Your task to perform on an android device: turn notification dots off Image 0: 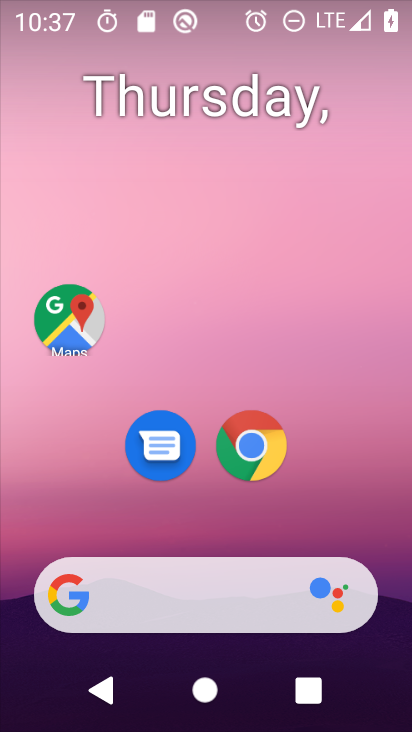
Step 0: drag from (200, 544) to (256, 186)
Your task to perform on an android device: turn notification dots off Image 1: 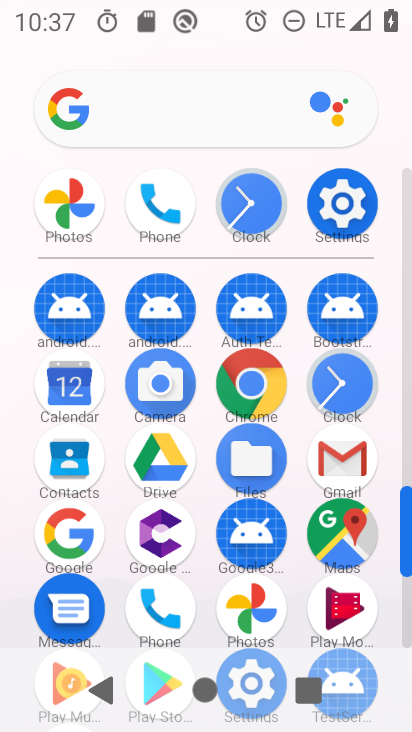
Step 1: click (340, 209)
Your task to perform on an android device: turn notification dots off Image 2: 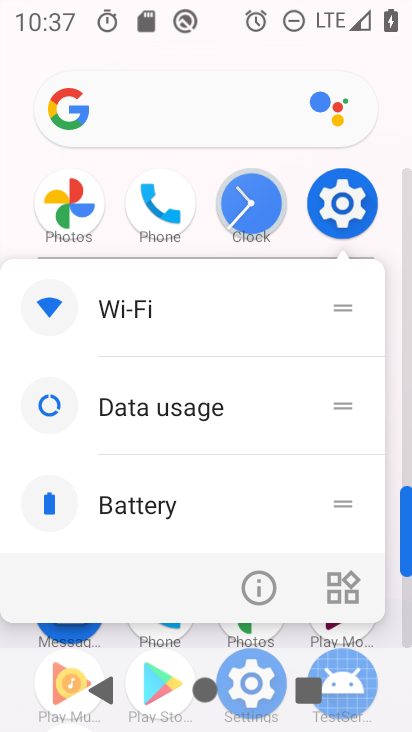
Step 2: click (249, 577)
Your task to perform on an android device: turn notification dots off Image 3: 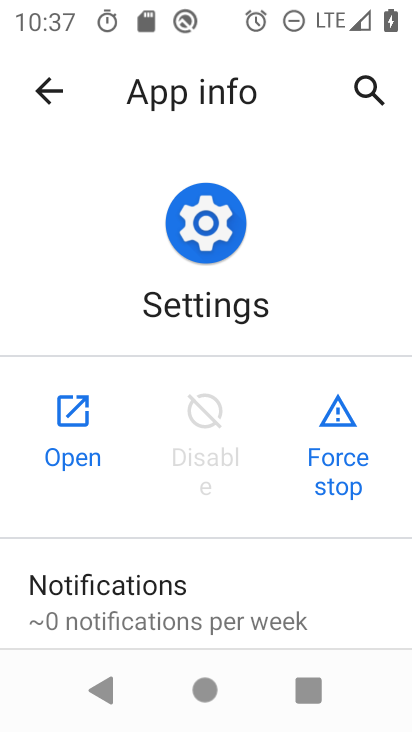
Step 3: click (85, 395)
Your task to perform on an android device: turn notification dots off Image 4: 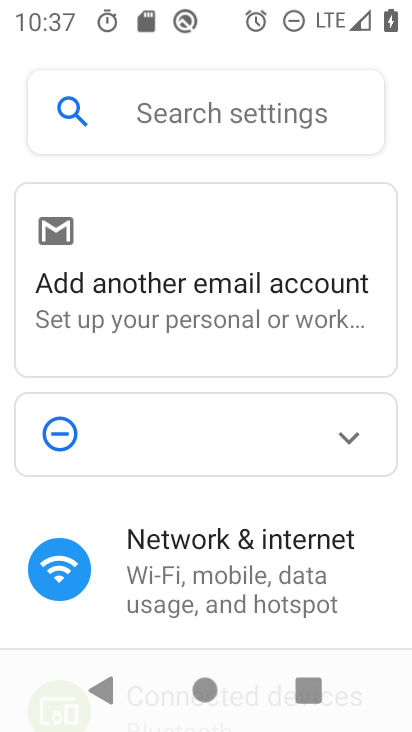
Step 4: click (312, 180)
Your task to perform on an android device: turn notification dots off Image 5: 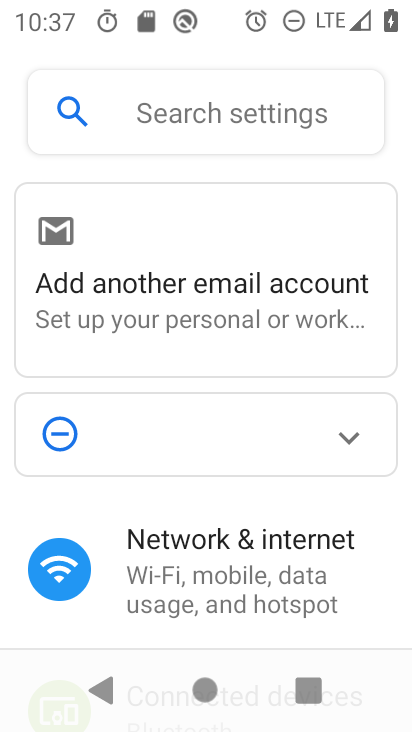
Step 5: drag from (219, 557) to (278, 170)
Your task to perform on an android device: turn notification dots off Image 6: 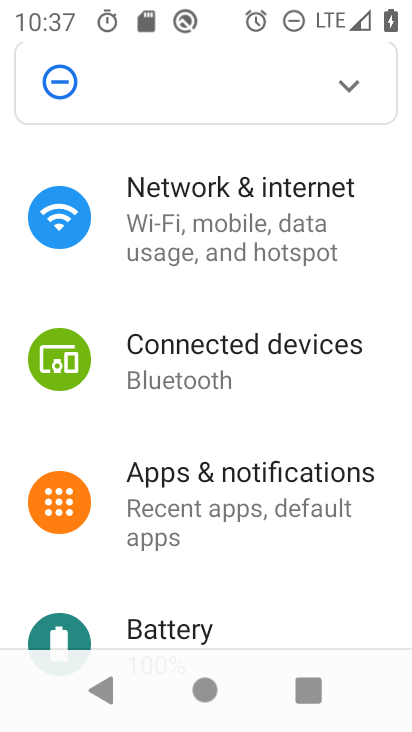
Step 6: click (214, 476)
Your task to perform on an android device: turn notification dots off Image 7: 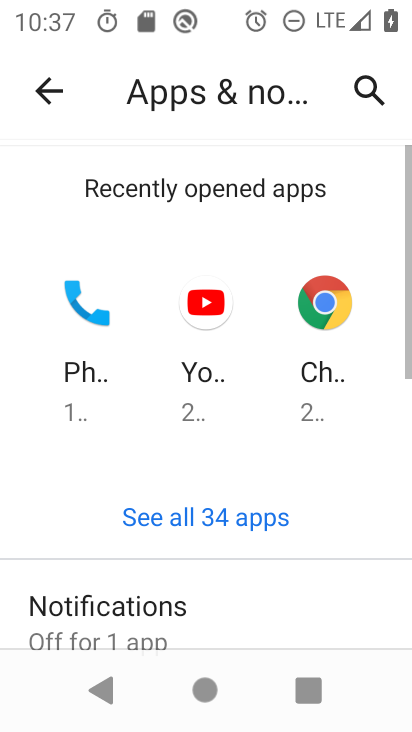
Step 7: drag from (250, 561) to (384, 39)
Your task to perform on an android device: turn notification dots off Image 8: 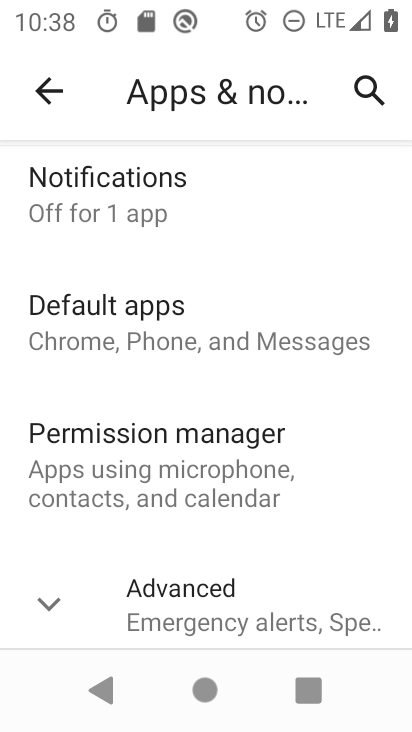
Step 8: click (180, 570)
Your task to perform on an android device: turn notification dots off Image 9: 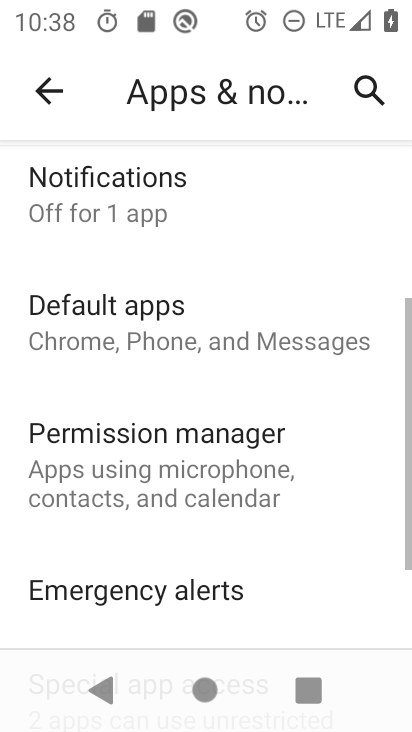
Step 9: drag from (181, 569) to (288, 110)
Your task to perform on an android device: turn notification dots off Image 10: 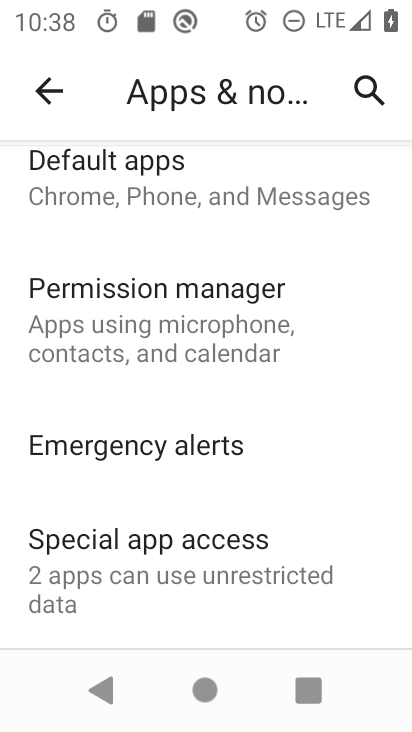
Step 10: drag from (242, 305) to (241, 682)
Your task to perform on an android device: turn notification dots off Image 11: 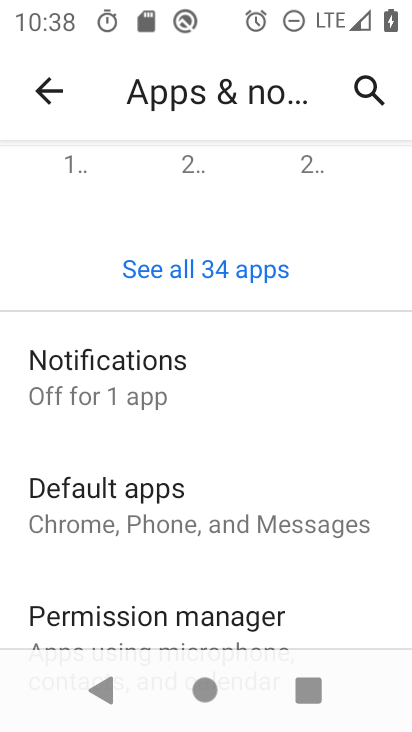
Step 11: click (151, 383)
Your task to perform on an android device: turn notification dots off Image 12: 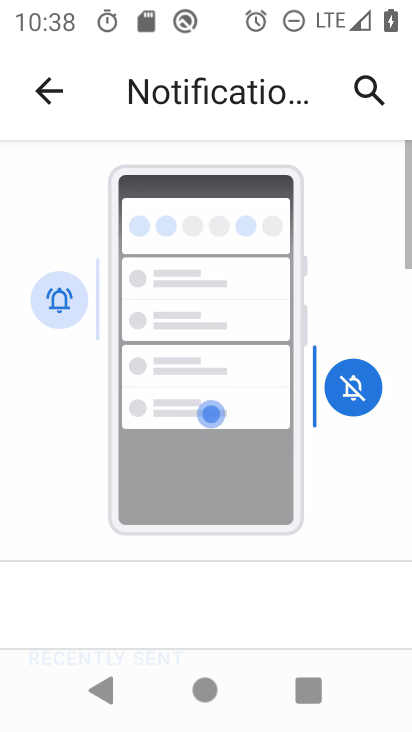
Step 12: drag from (300, 618) to (392, 135)
Your task to perform on an android device: turn notification dots off Image 13: 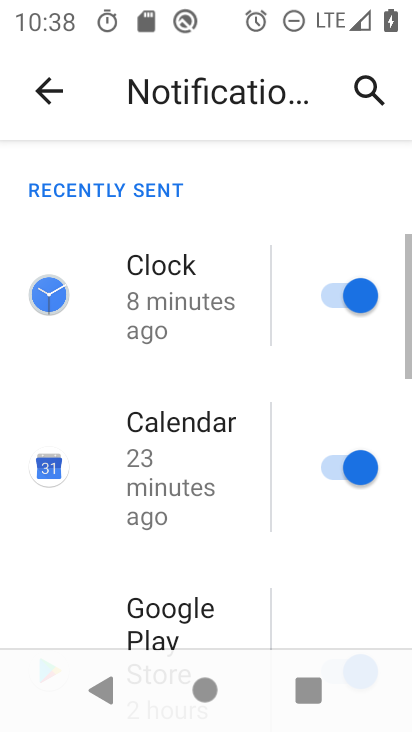
Step 13: drag from (200, 604) to (267, 100)
Your task to perform on an android device: turn notification dots off Image 14: 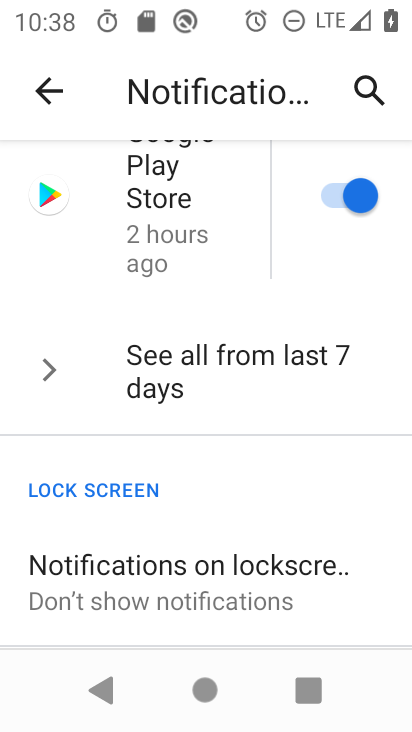
Step 14: drag from (193, 580) to (207, 121)
Your task to perform on an android device: turn notification dots off Image 15: 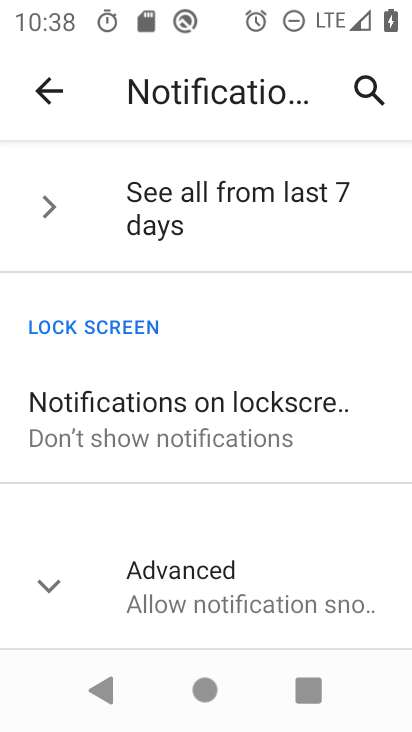
Step 15: click (154, 580)
Your task to perform on an android device: turn notification dots off Image 16: 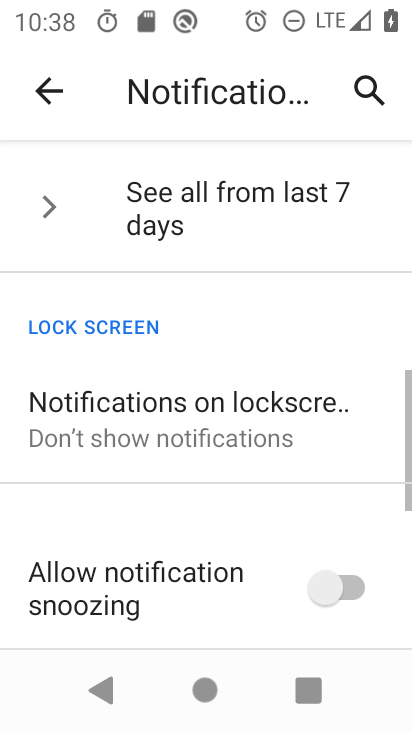
Step 16: drag from (214, 570) to (264, 265)
Your task to perform on an android device: turn notification dots off Image 17: 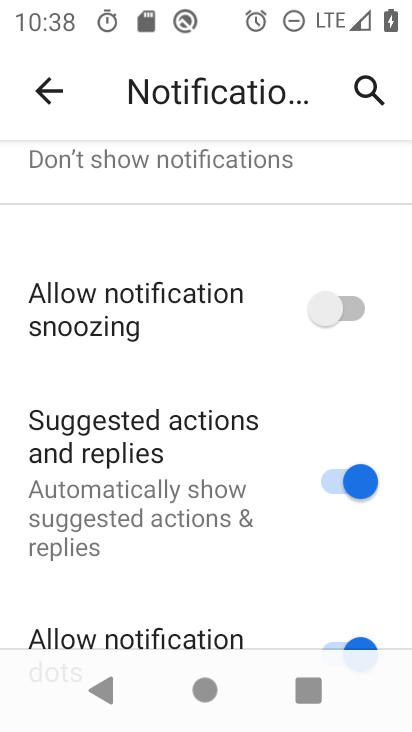
Step 17: drag from (206, 544) to (281, 179)
Your task to perform on an android device: turn notification dots off Image 18: 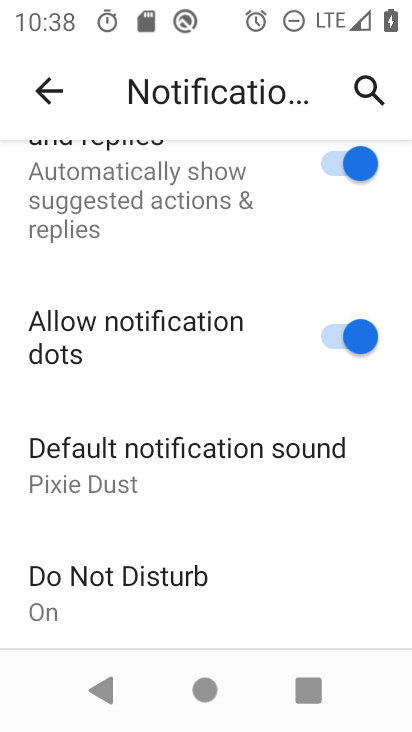
Step 18: click (360, 330)
Your task to perform on an android device: turn notification dots off Image 19: 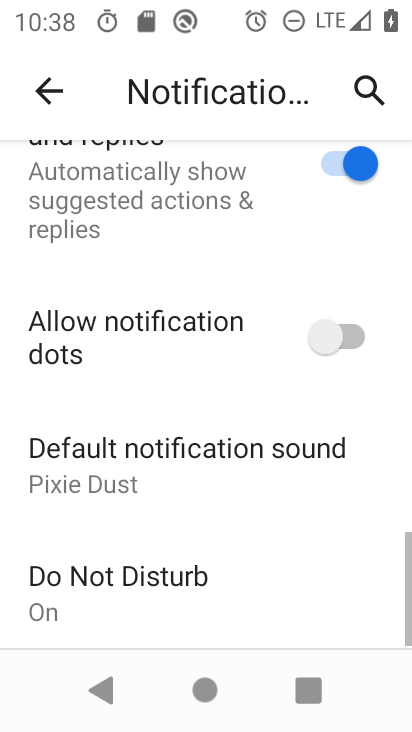
Step 19: task complete